Your task to perform on an android device: install app "Flipkart Online Shopping App" Image 0: 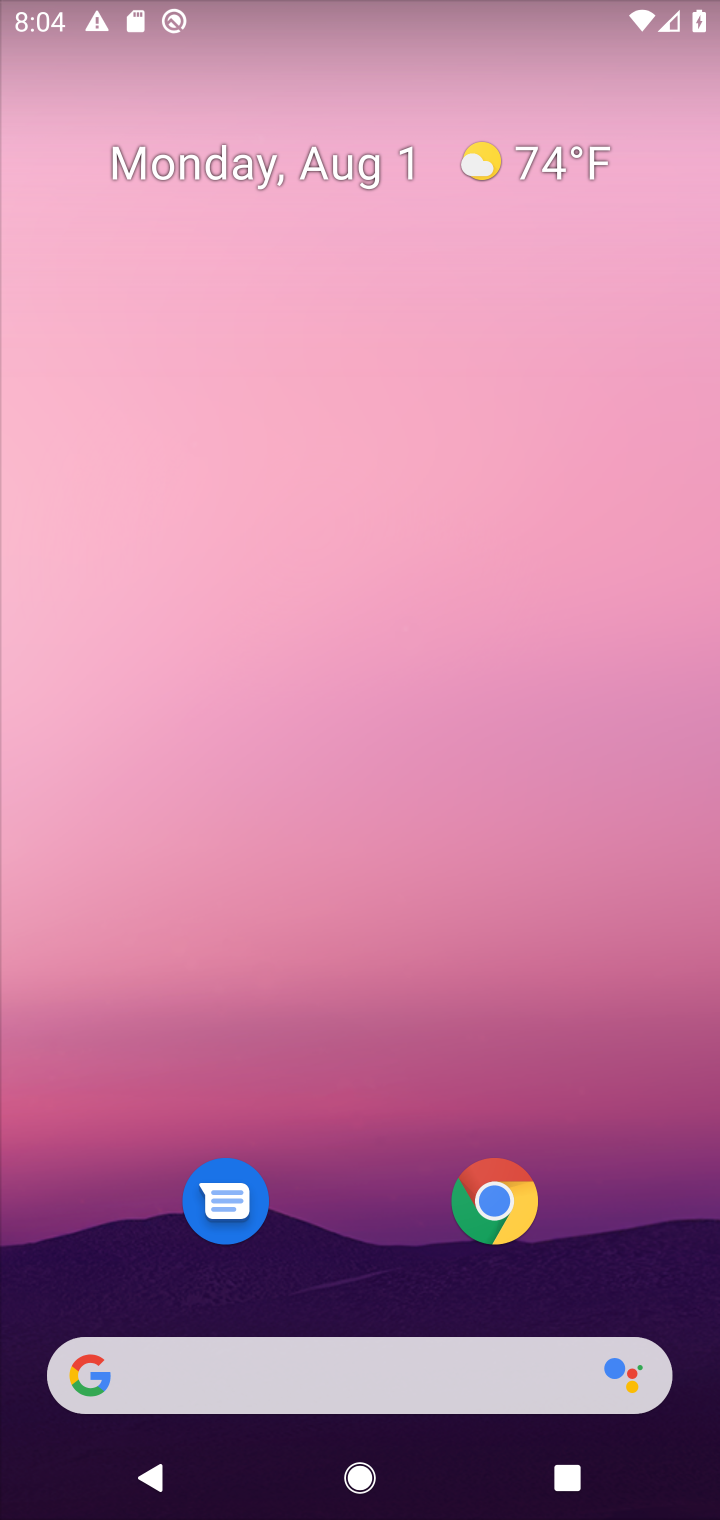
Step 0: drag from (650, 1160) to (623, 300)
Your task to perform on an android device: install app "Flipkart Online Shopping App" Image 1: 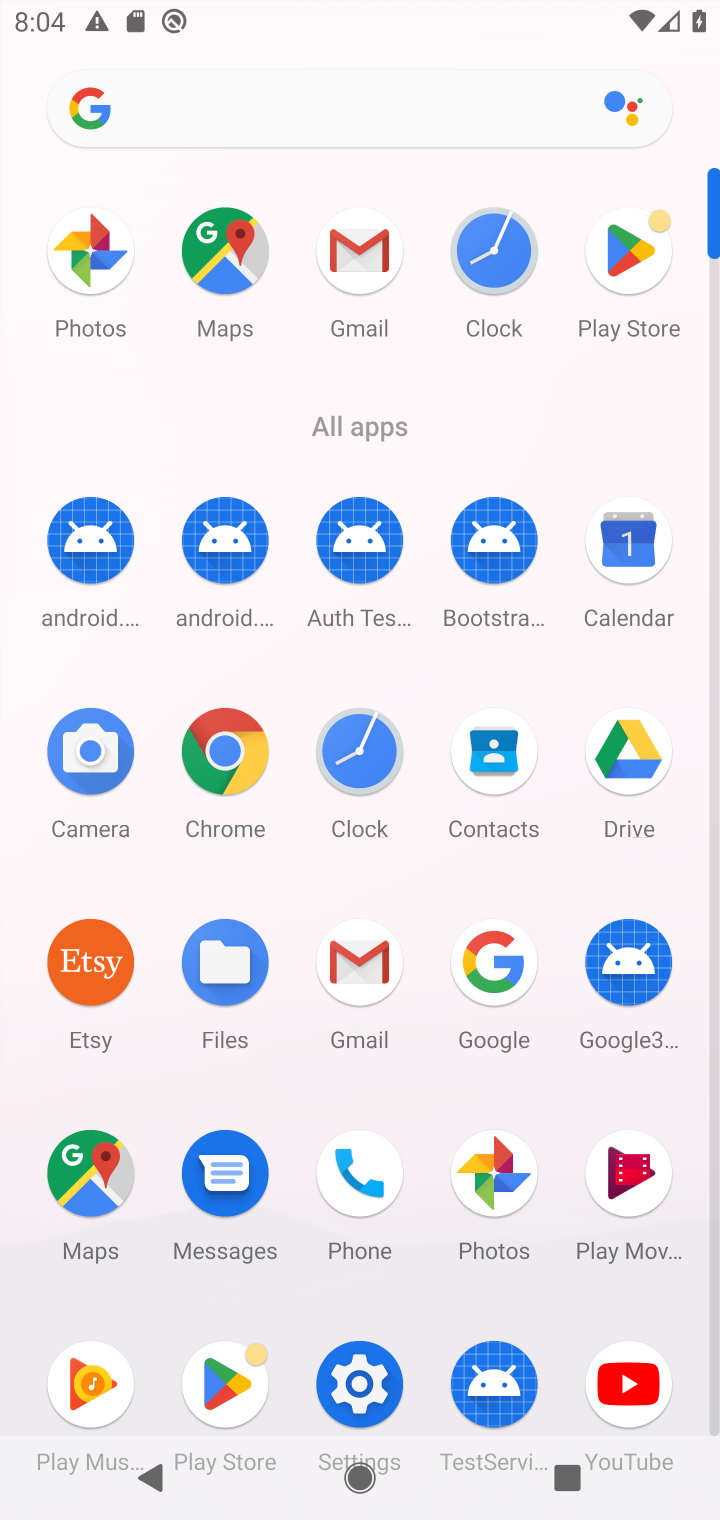
Step 1: click (641, 269)
Your task to perform on an android device: install app "Flipkart Online Shopping App" Image 2: 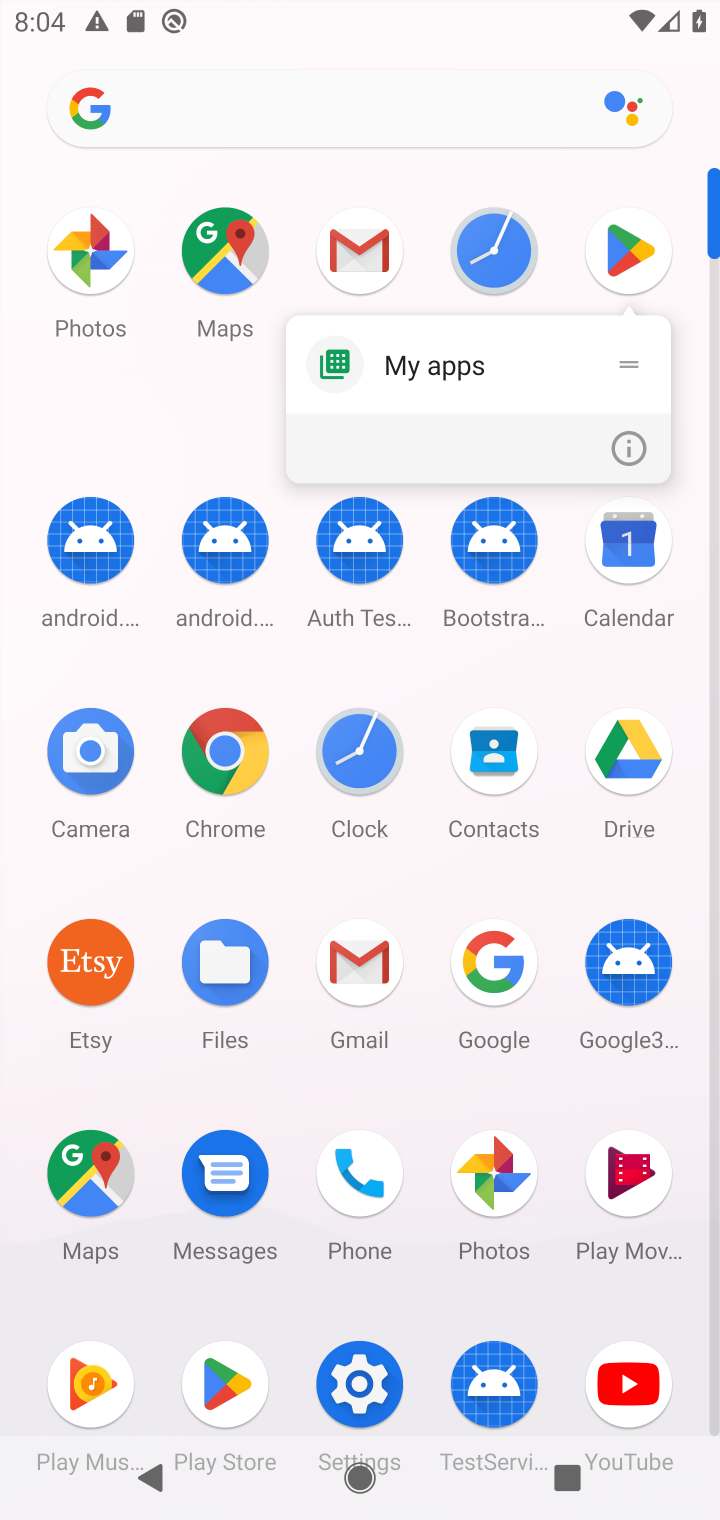
Step 2: click (645, 266)
Your task to perform on an android device: install app "Flipkart Online Shopping App" Image 3: 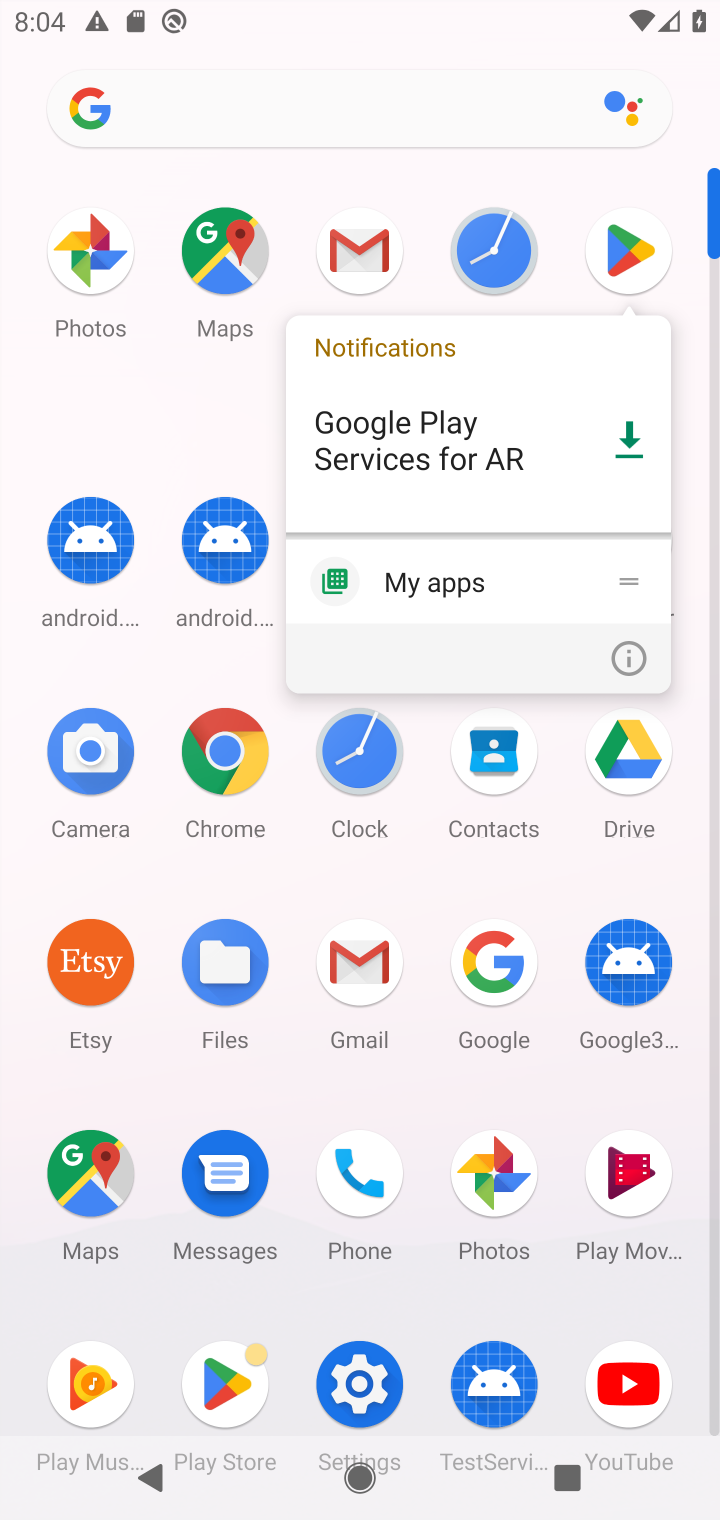
Step 3: click (633, 257)
Your task to perform on an android device: install app "Flipkart Online Shopping App" Image 4: 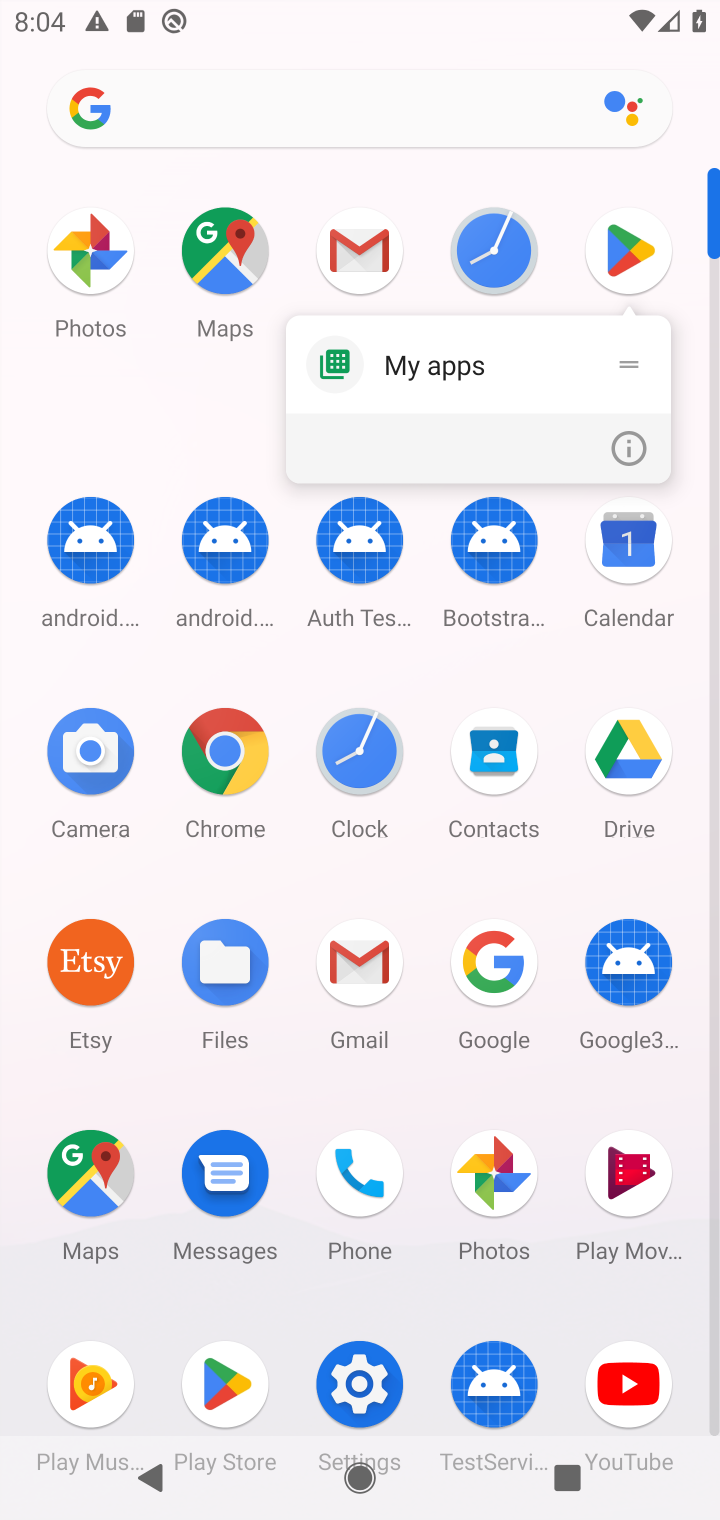
Step 4: click (633, 257)
Your task to perform on an android device: install app "Flipkart Online Shopping App" Image 5: 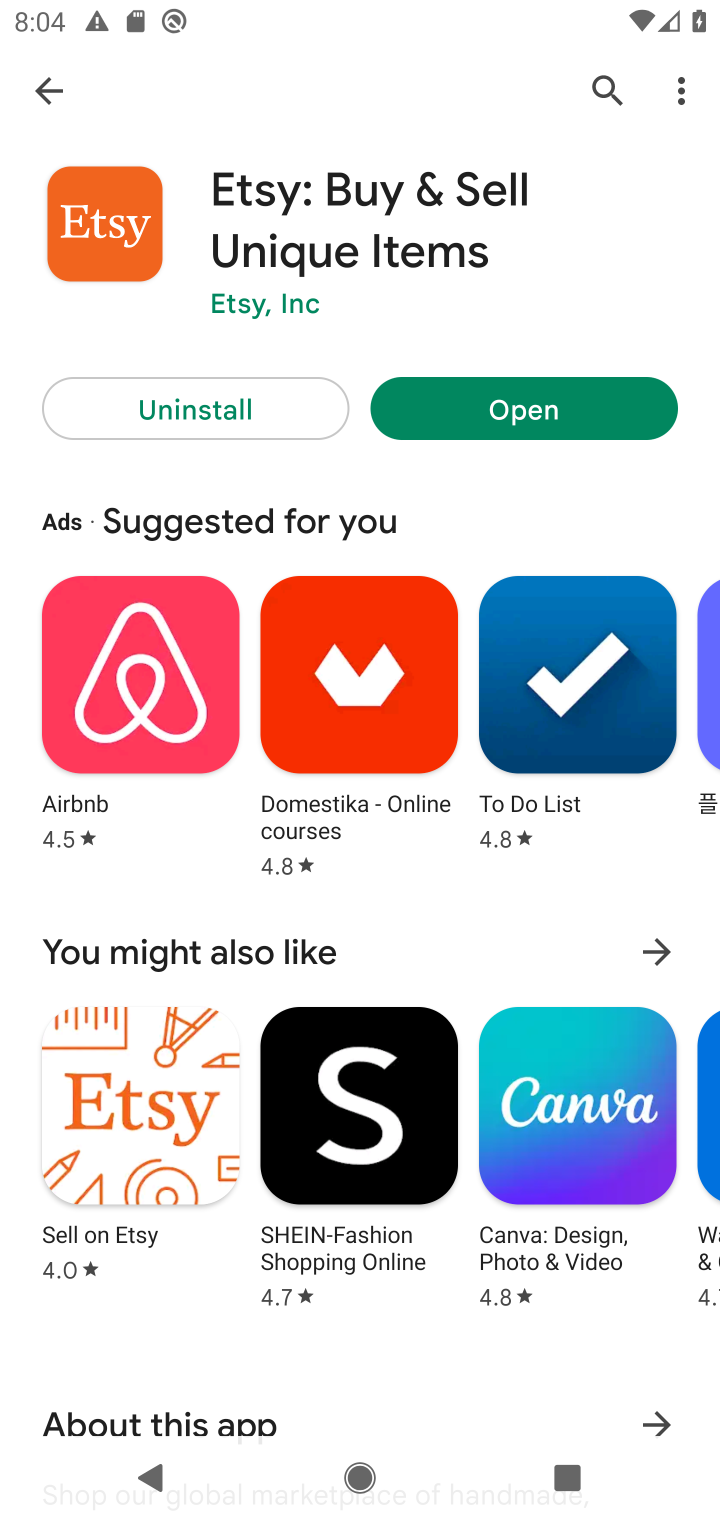
Step 5: press back button
Your task to perform on an android device: install app "Flipkart Online Shopping App" Image 6: 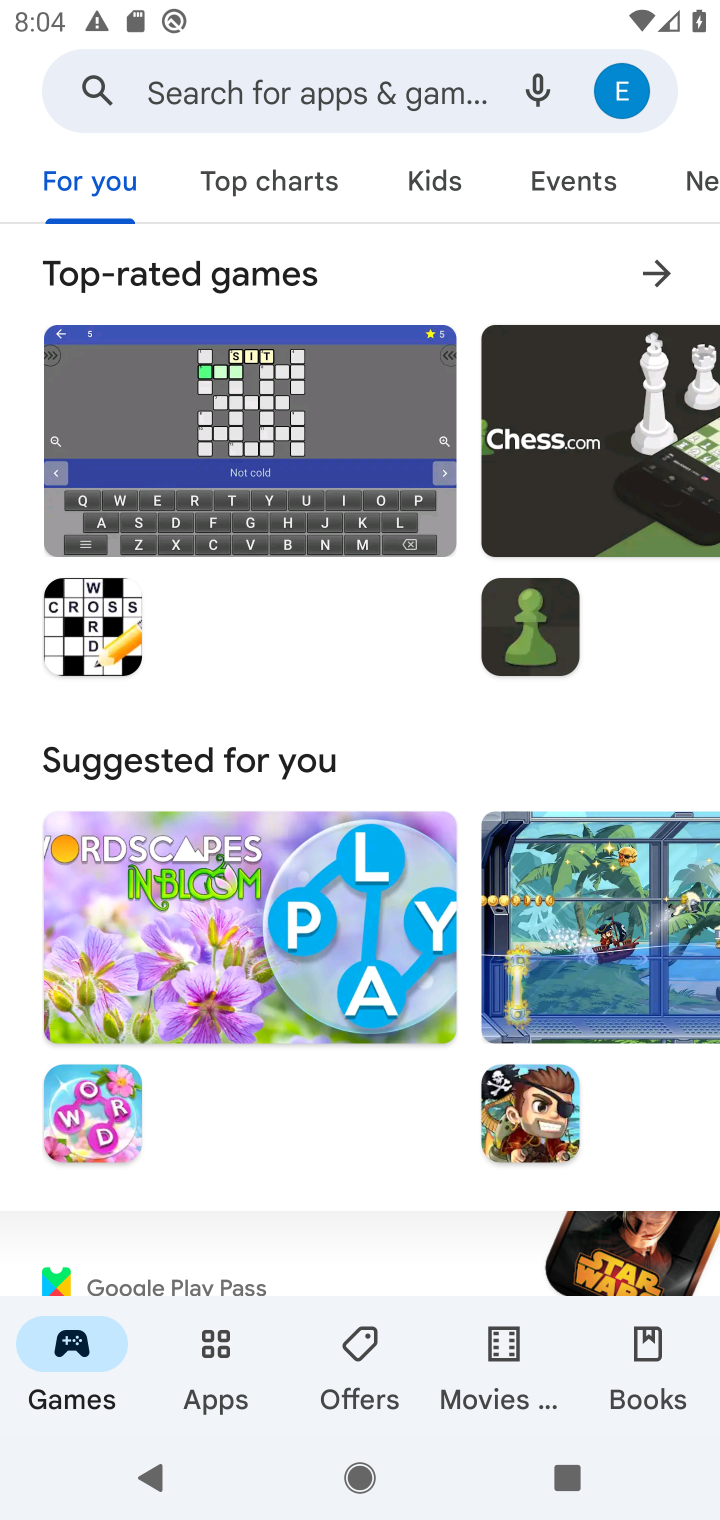
Step 6: click (347, 84)
Your task to perform on an android device: install app "Flipkart Online Shopping App" Image 7: 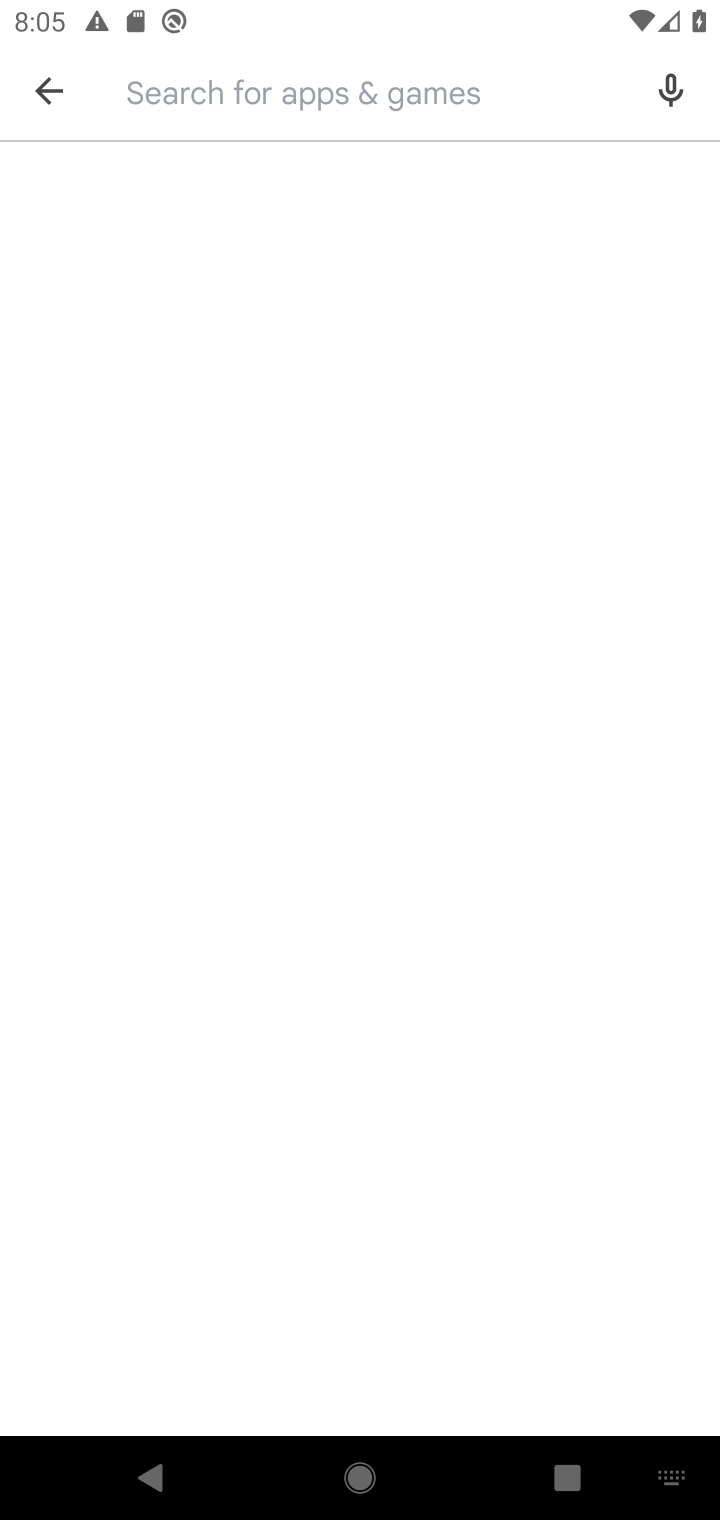
Step 7: type "Flipkart online shopping App"
Your task to perform on an android device: install app "Flipkart Online Shopping App" Image 8: 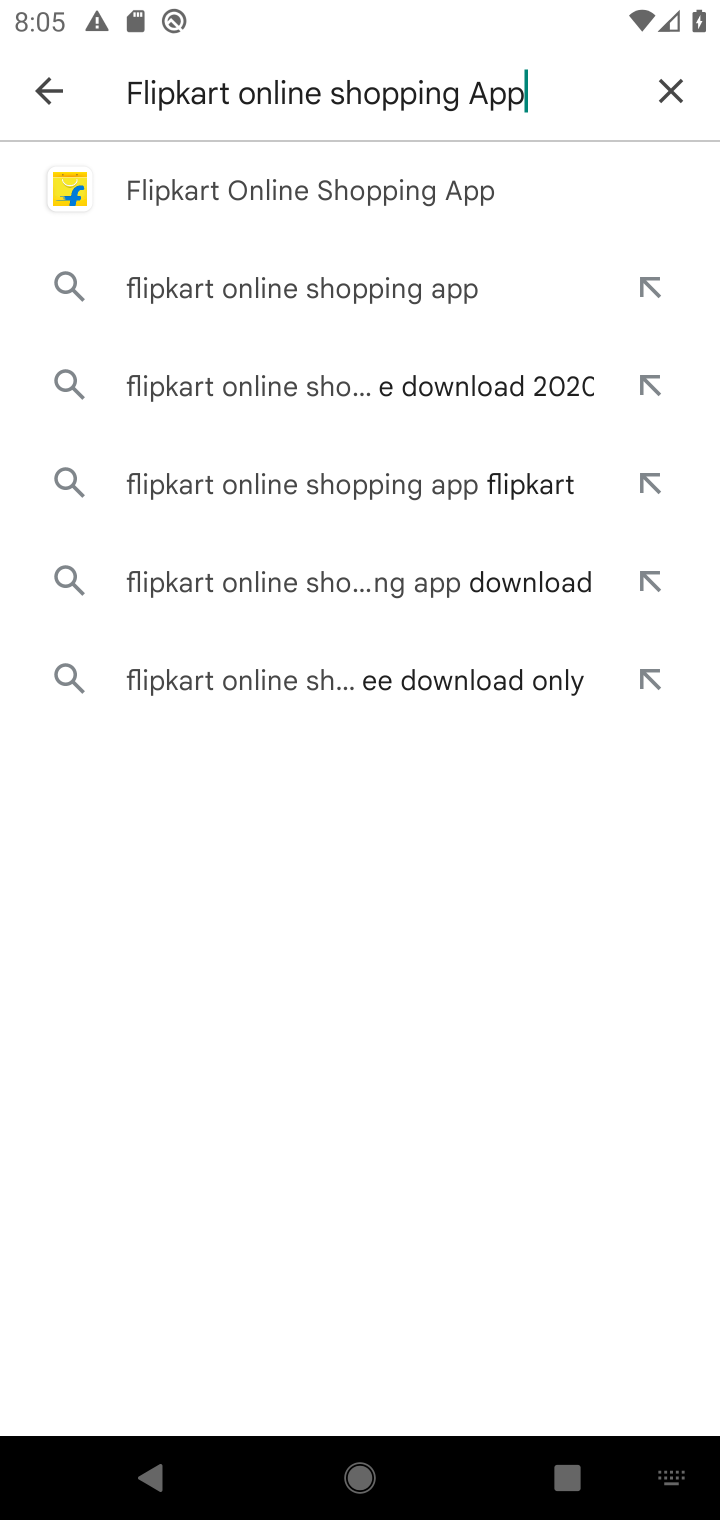
Step 8: click (387, 205)
Your task to perform on an android device: install app "Flipkart Online Shopping App" Image 9: 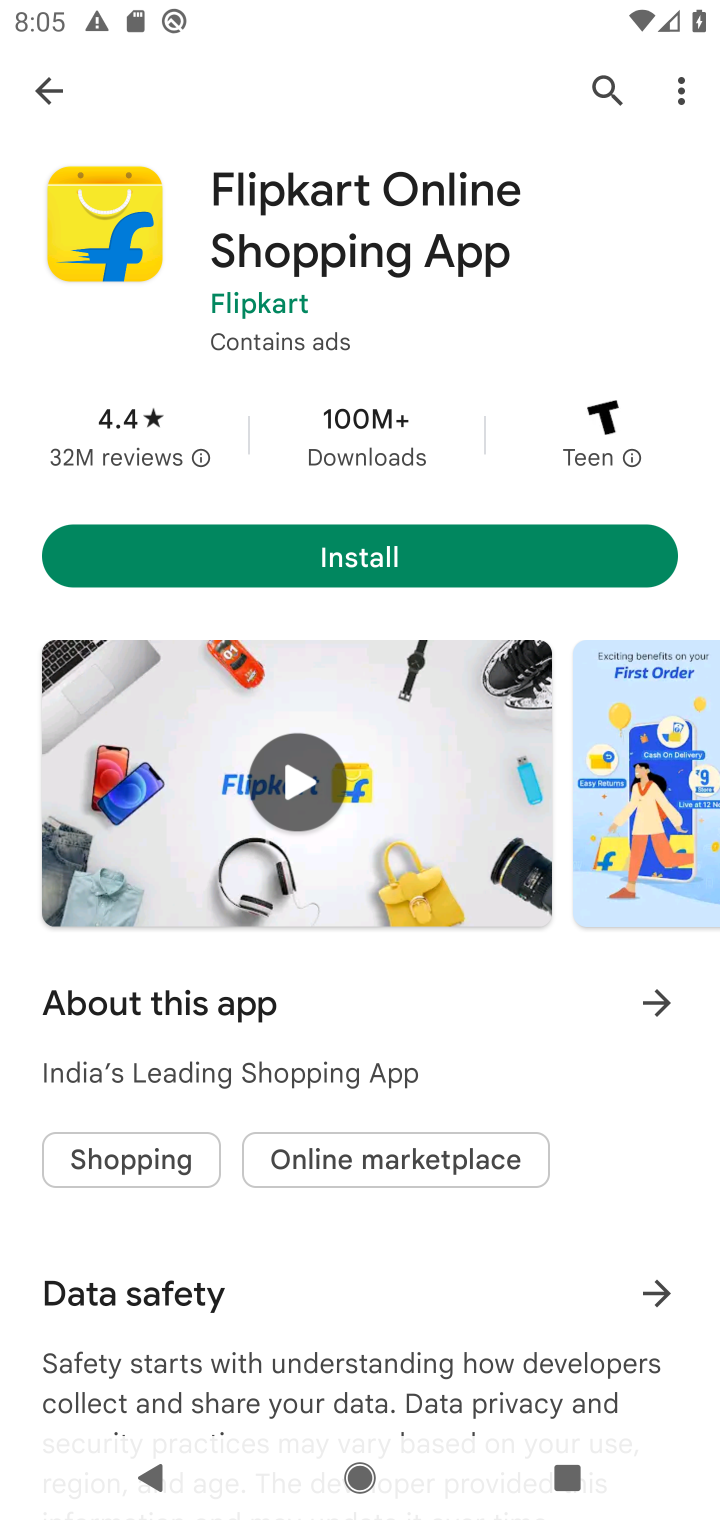
Step 9: click (356, 554)
Your task to perform on an android device: install app "Flipkart Online Shopping App" Image 10: 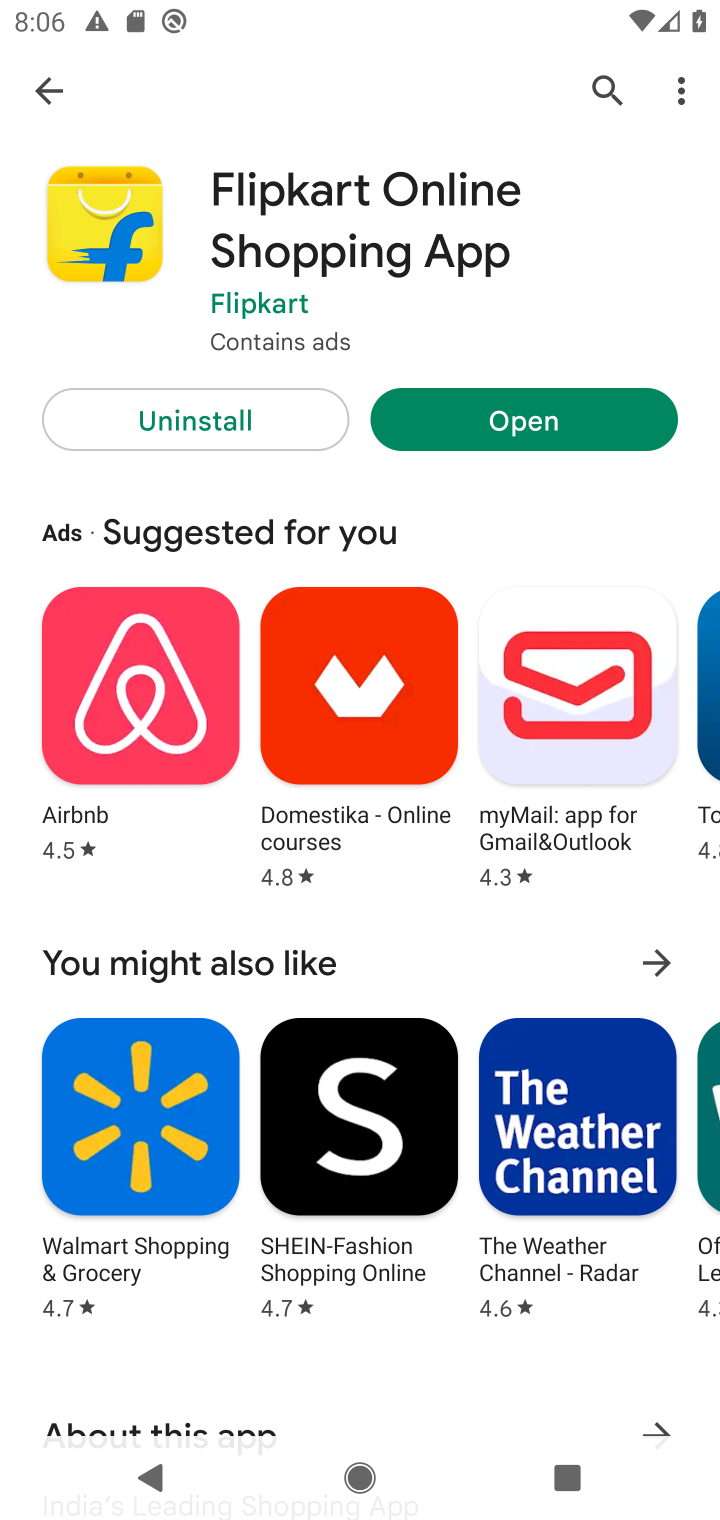
Step 10: task complete